Your task to perform on an android device: turn pop-ups off in chrome Image 0: 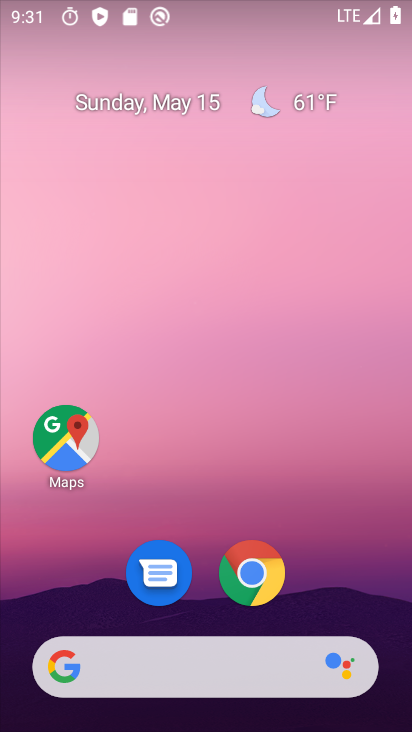
Step 0: click (245, 586)
Your task to perform on an android device: turn pop-ups off in chrome Image 1: 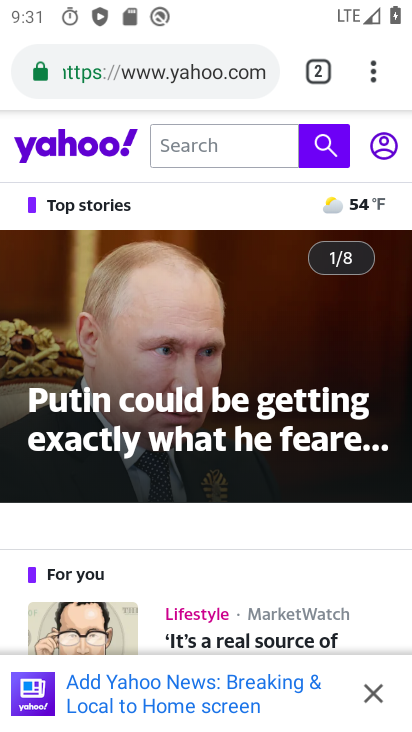
Step 1: click (365, 72)
Your task to perform on an android device: turn pop-ups off in chrome Image 2: 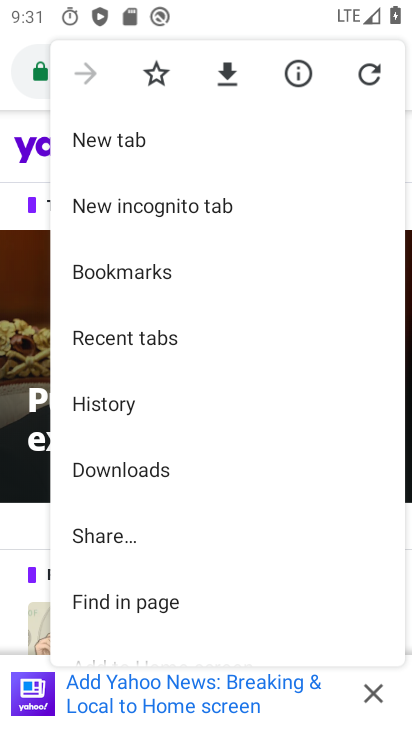
Step 2: drag from (104, 604) to (259, 175)
Your task to perform on an android device: turn pop-ups off in chrome Image 3: 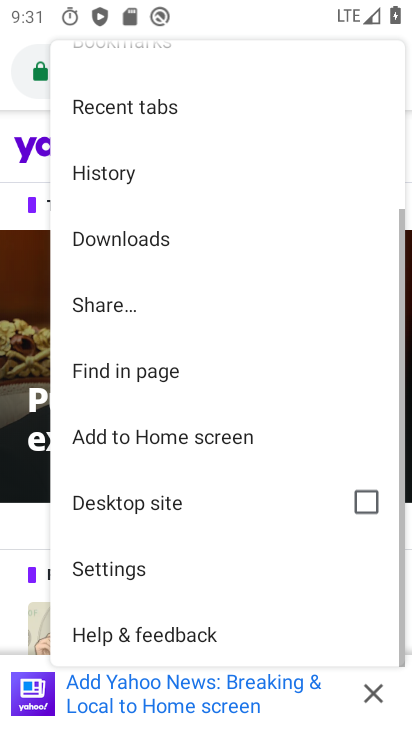
Step 3: click (116, 570)
Your task to perform on an android device: turn pop-ups off in chrome Image 4: 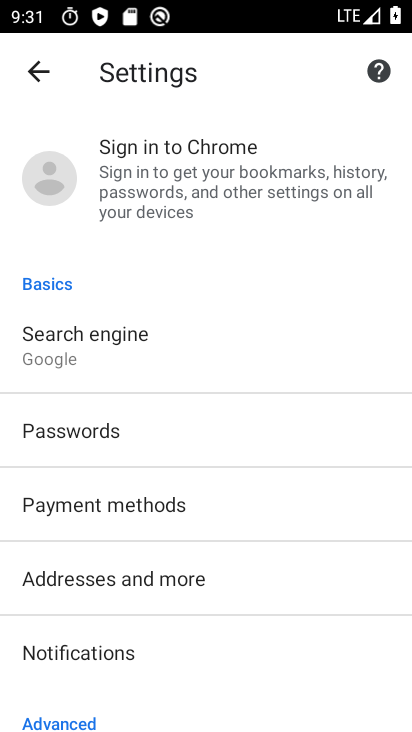
Step 4: drag from (66, 699) to (216, 245)
Your task to perform on an android device: turn pop-ups off in chrome Image 5: 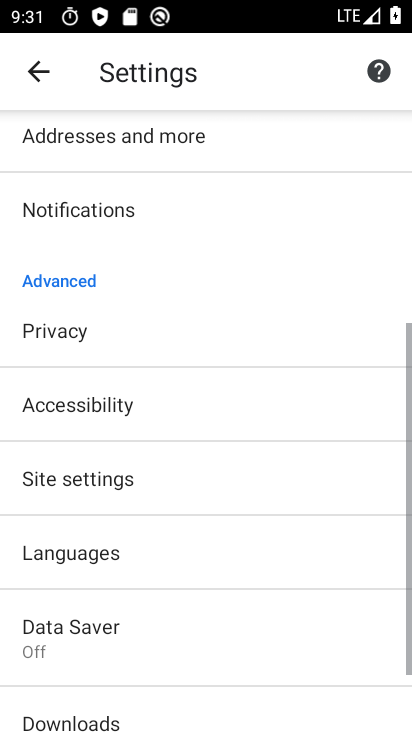
Step 5: drag from (26, 727) to (224, 275)
Your task to perform on an android device: turn pop-ups off in chrome Image 6: 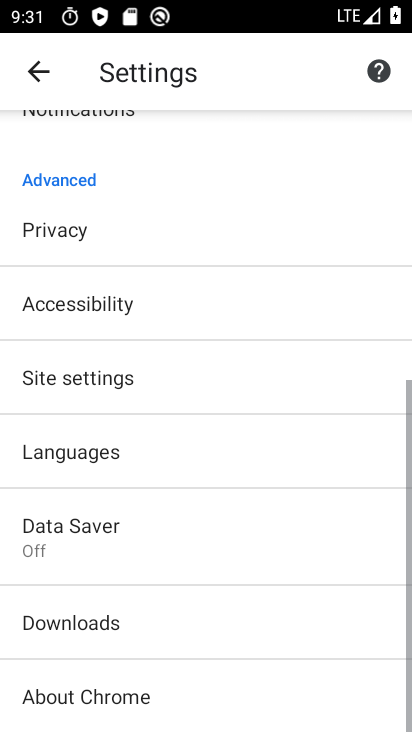
Step 6: click (91, 378)
Your task to perform on an android device: turn pop-ups off in chrome Image 7: 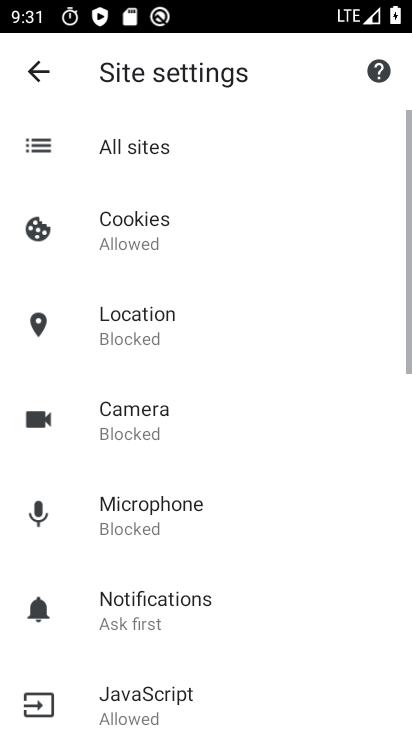
Step 7: drag from (61, 696) to (316, 178)
Your task to perform on an android device: turn pop-ups off in chrome Image 8: 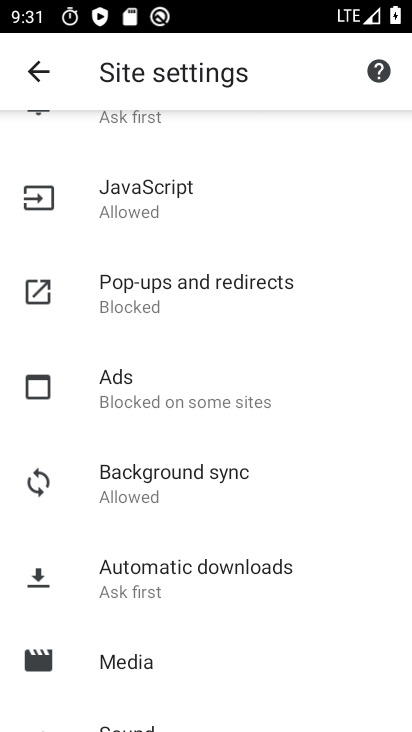
Step 8: click (205, 274)
Your task to perform on an android device: turn pop-ups off in chrome Image 9: 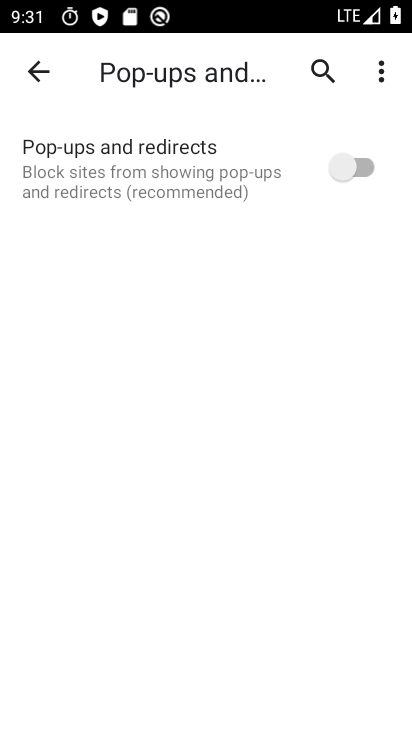
Step 9: click (335, 165)
Your task to perform on an android device: turn pop-ups off in chrome Image 10: 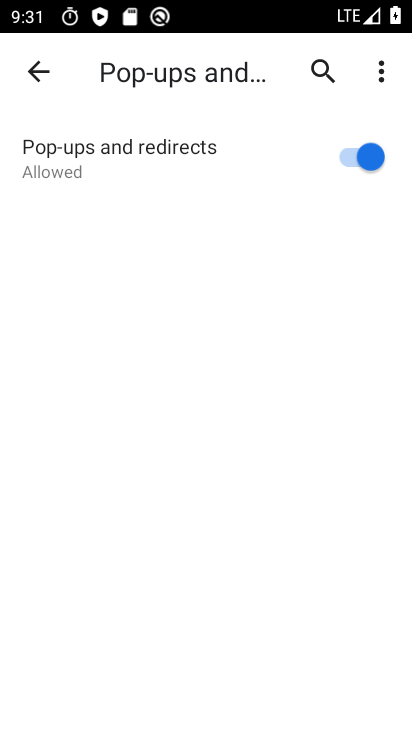
Step 10: click (380, 151)
Your task to perform on an android device: turn pop-ups off in chrome Image 11: 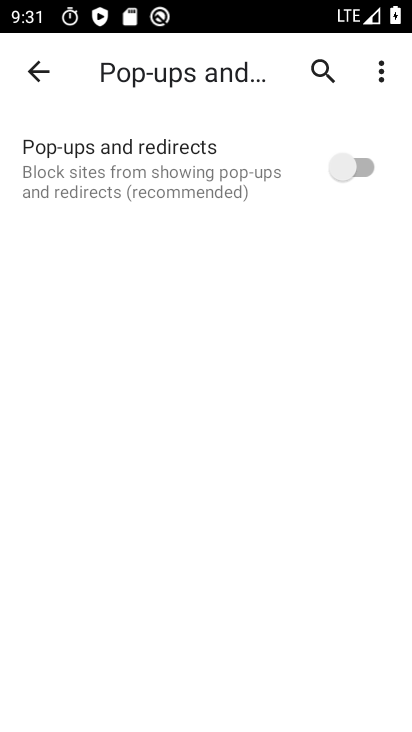
Step 11: task complete